Your task to perform on an android device: refresh tabs in the chrome app Image 0: 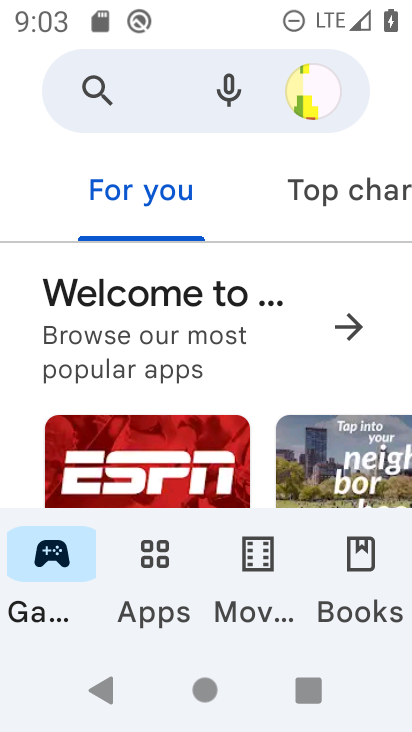
Step 0: press home button
Your task to perform on an android device: refresh tabs in the chrome app Image 1: 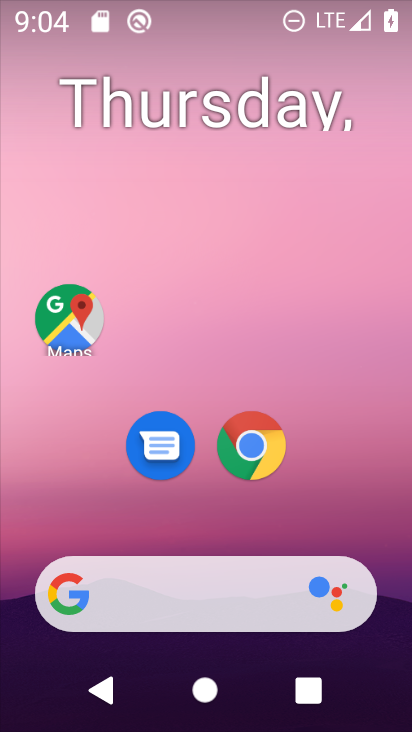
Step 1: click (389, 627)
Your task to perform on an android device: refresh tabs in the chrome app Image 2: 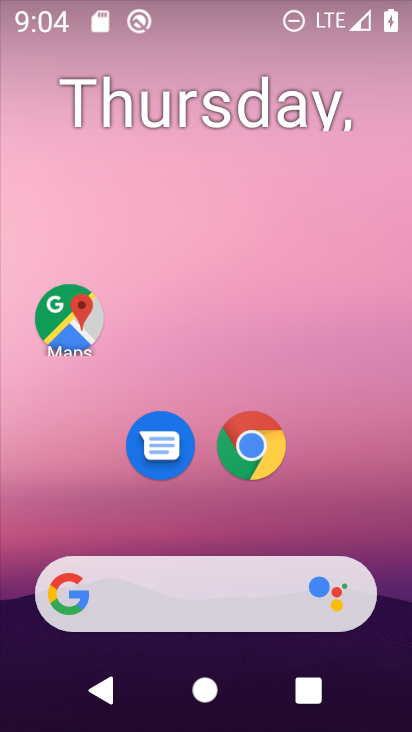
Step 2: drag from (408, 388) to (326, 45)
Your task to perform on an android device: refresh tabs in the chrome app Image 3: 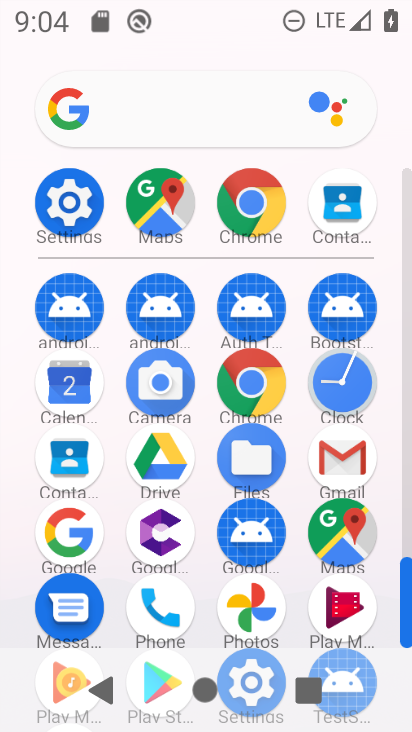
Step 3: click (252, 209)
Your task to perform on an android device: refresh tabs in the chrome app Image 4: 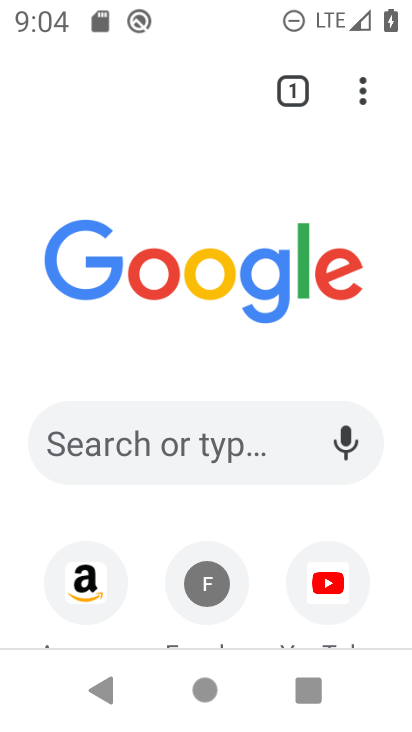
Step 4: click (361, 94)
Your task to perform on an android device: refresh tabs in the chrome app Image 5: 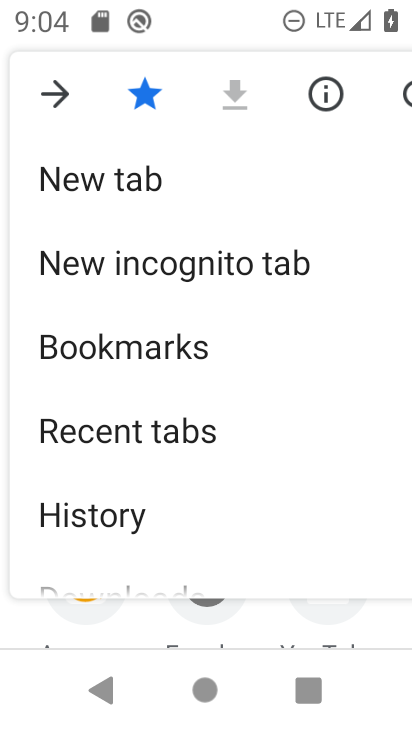
Step 5: click (409, 88)
Your task to perform on an android device: refresh tabs in the chrome app Image 6: 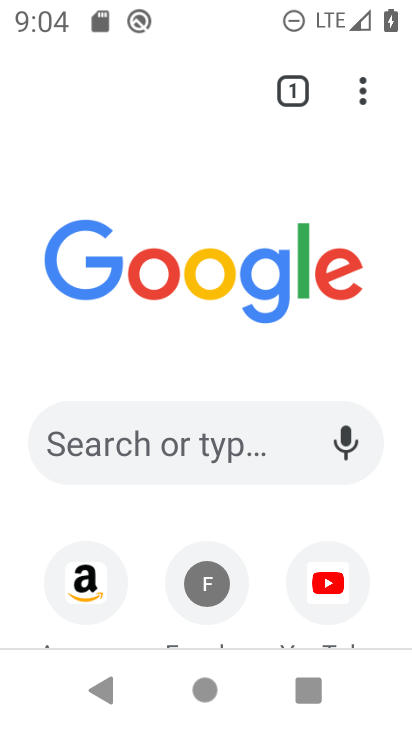
Step 6: task complete